Your task to perform on an android device: turn pop-ups off in chrome Image 0: 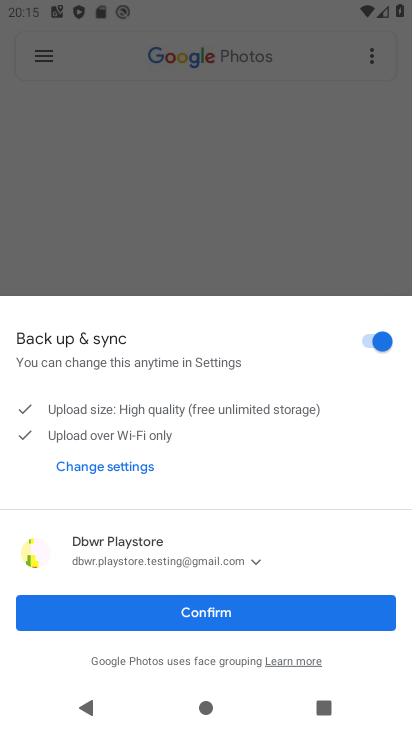
Step 0: press home button
Your task to perform on an android device: turn pop-ups off in chrome Image 1: 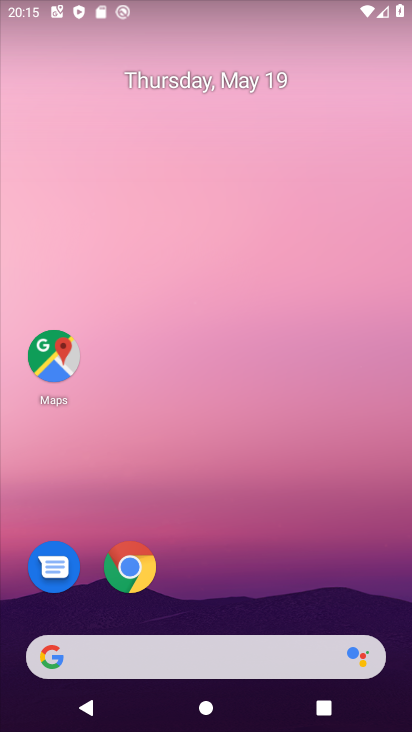
Step 1: click (134, 570)
Your task to perform on an android device: turn pop-ups off in chrome Image 2: 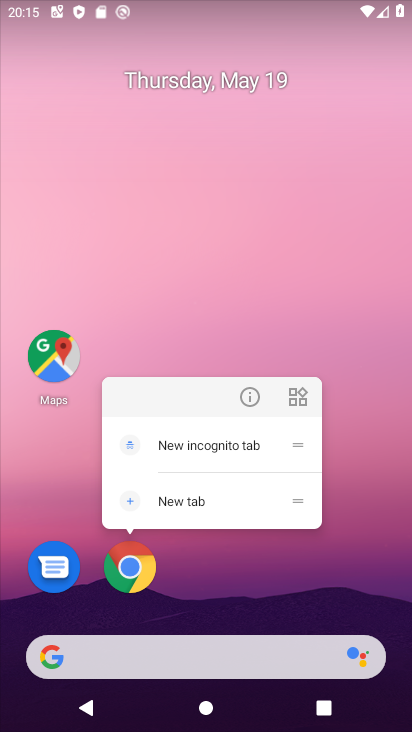
Step 2: click (143, 565)
Your task to perform on an android device: turn pop-ups off in chrome Image 3: 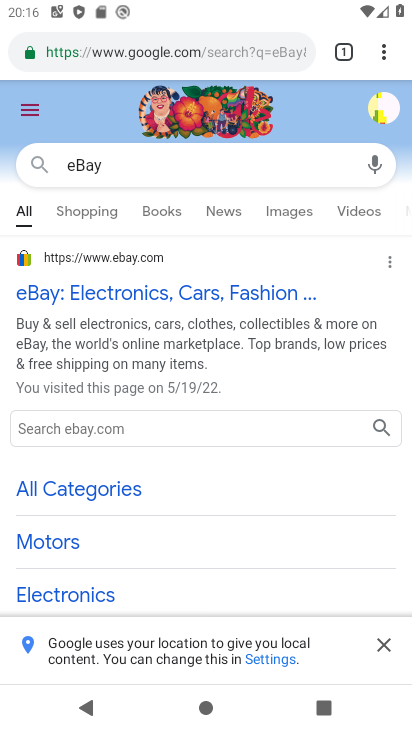
Step 3: click (381, 50)
Your task to perform on an android device: turn pop-ups off in chrome Image 4: 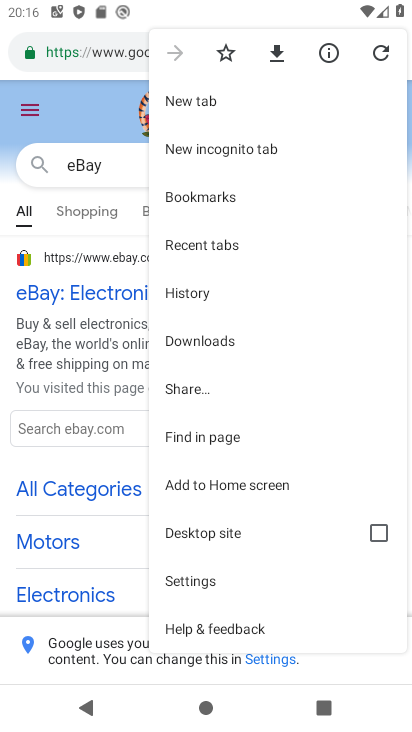
Step 4: click (186, 583)
Your task to perform on an android device: turn pop-ups off in chrome Image 5: 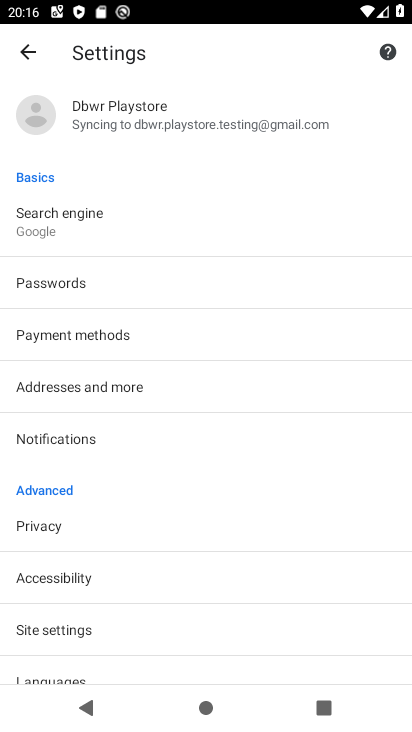
Step 5: click (62, 628)
Your task to perform on an android device: turn pop-ups off in chrome Image 6: 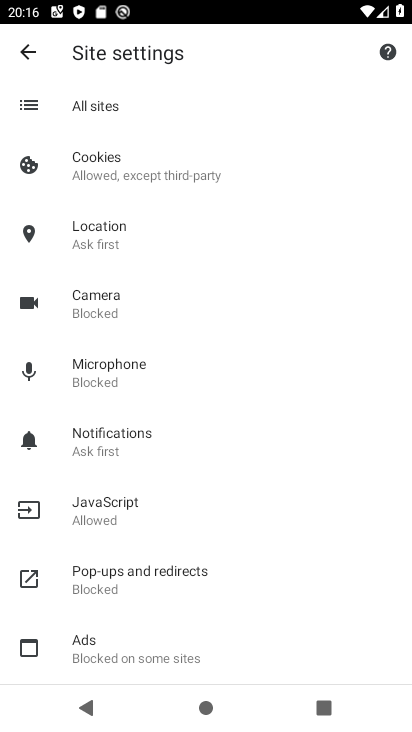
Step 6: click (104, 580)
Your task to perform on an android device: turn pop-ups off in chrome Image 7: 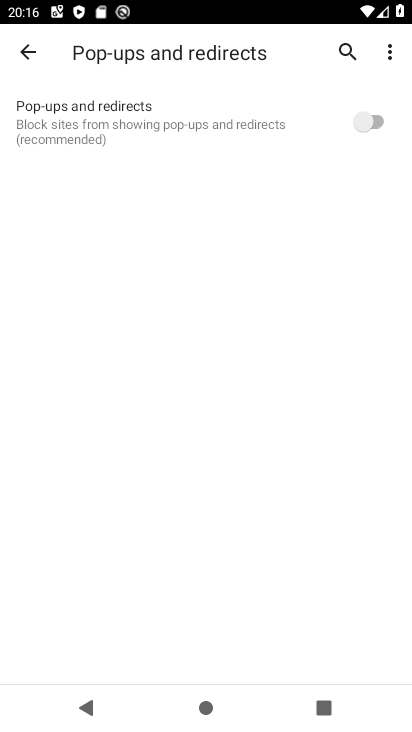
Step 7: click (360, 123)
Your task to perform on an android device: turn pop-ups off in chrome Image 8: 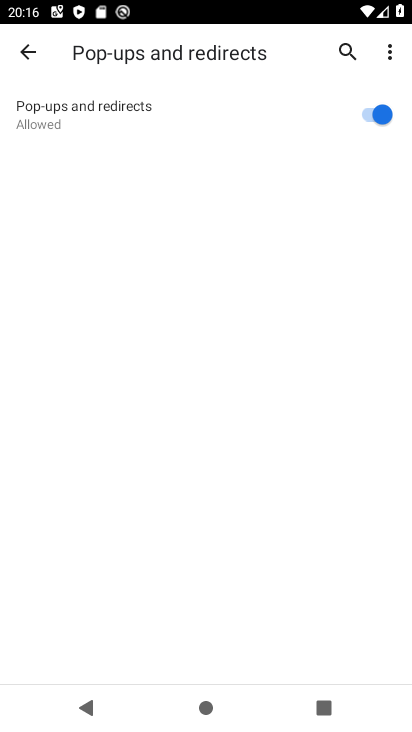
Step 8: task complete